Your task to perform on an android device: Open Maps and search for coffee Image 0: 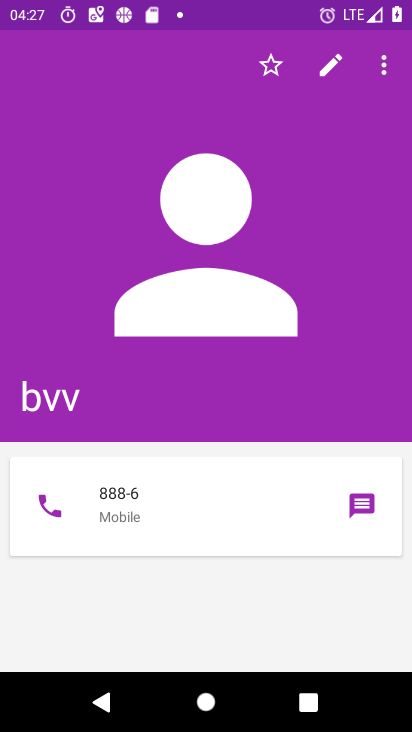
Step 0: press back button
Your task to perform on an android device: Open Maps and search for coffee Image 1: 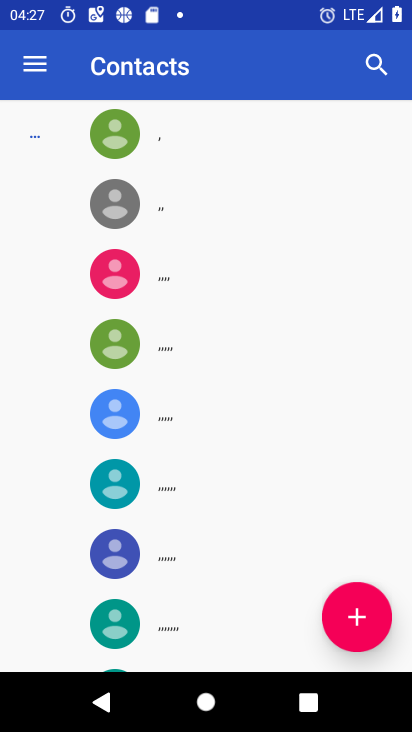
Step 1: press home button
Your task to perform on an android device: Open Maps and search for coffee Image 2: 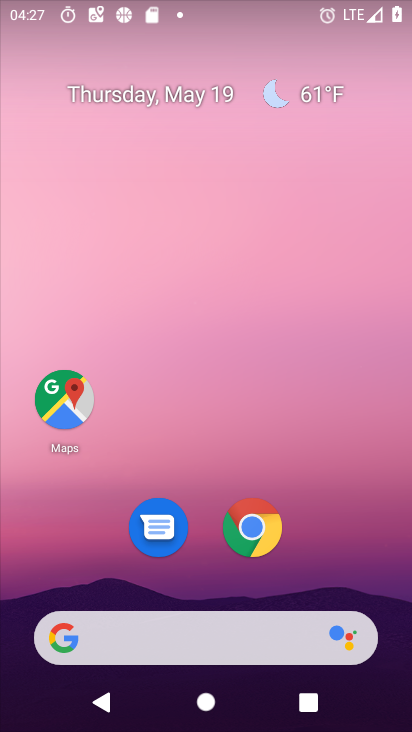
Step 2: click (57, 400)
Your task to perform on an android device: Open Maps and search for coffee Image 3: 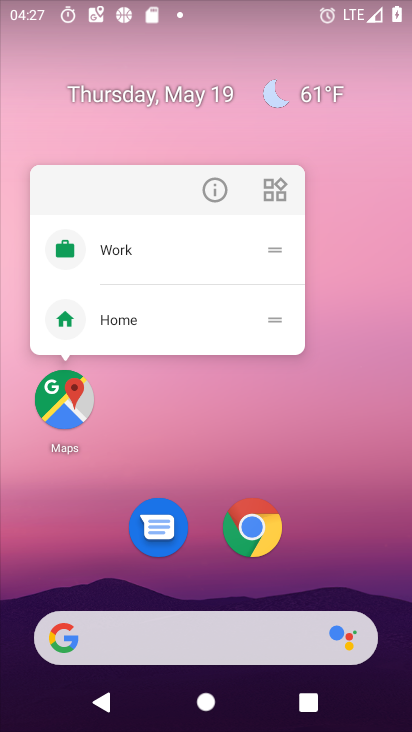
Step 3: click (70, 400)
Your task to perform on an android device: Open Maps and search for coffee Image 4: 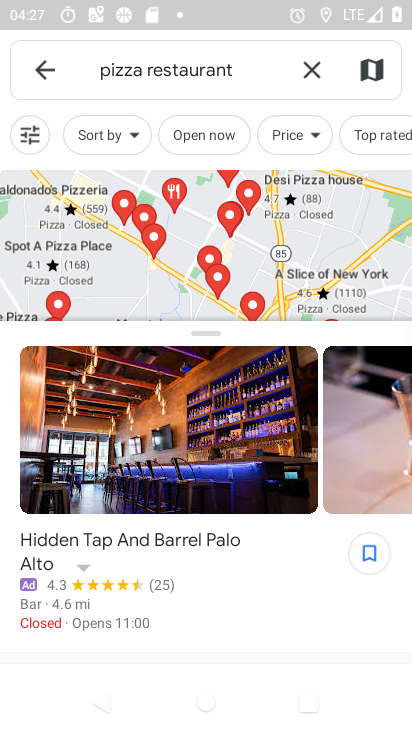
Step 4: click (308, 67)
Your task to perform on an android device: Open Maps and search for coffee Image 5: 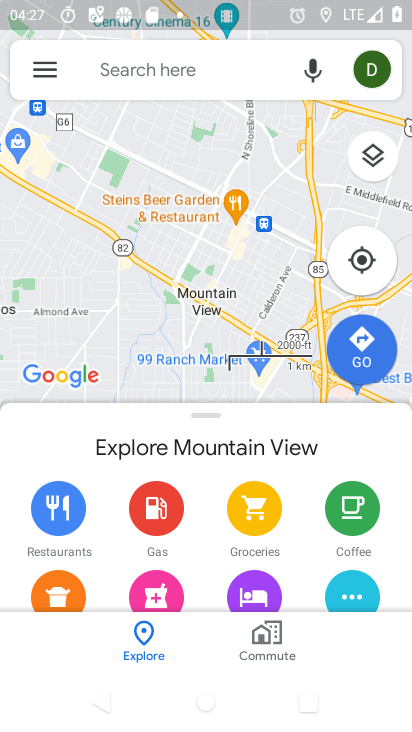
Step 5: click (149, 64)
Your task to perform on an android device: Open Maps and search for coffee Image 6: 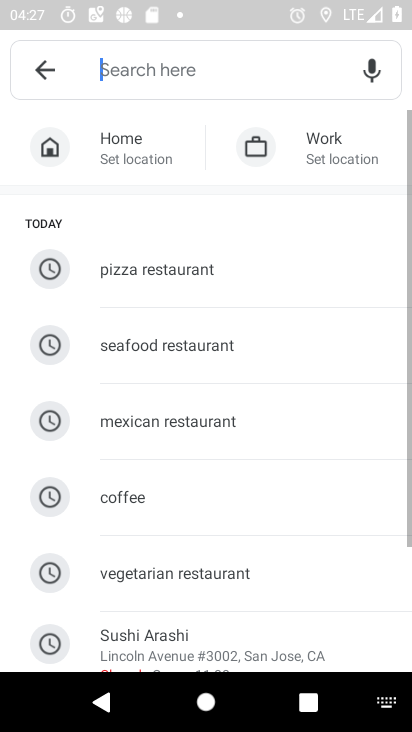
Step 6: click (131, 491)
Your task to perform on an android device: Open Maps and search for coffee Image 7: 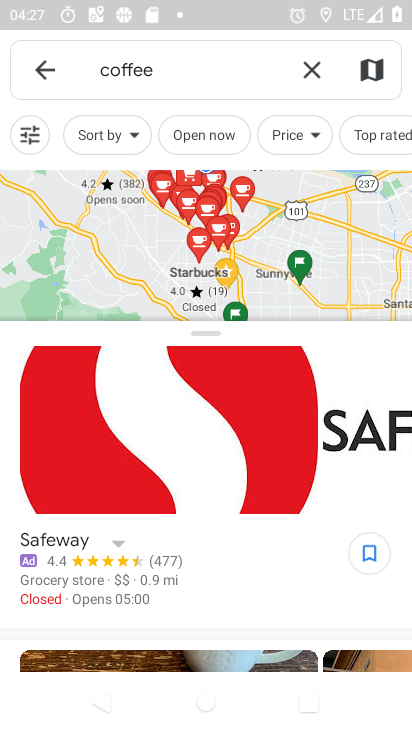
Step 7: task complete